Your task to perform on an android device: Open eBay Image 0: 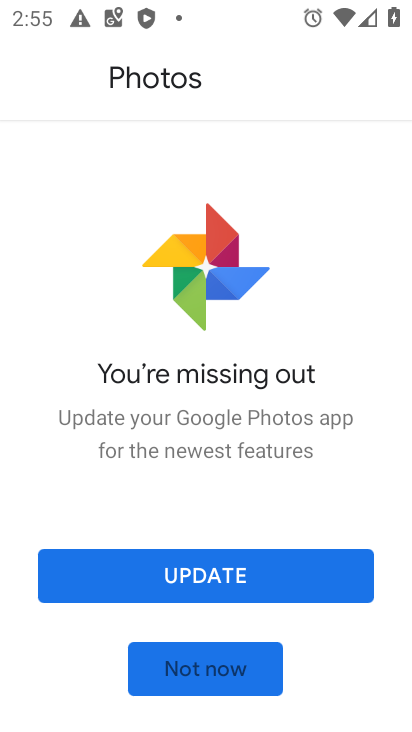
Step 0: press home button
Your task to perform on an android device: Open eBay Image 1: 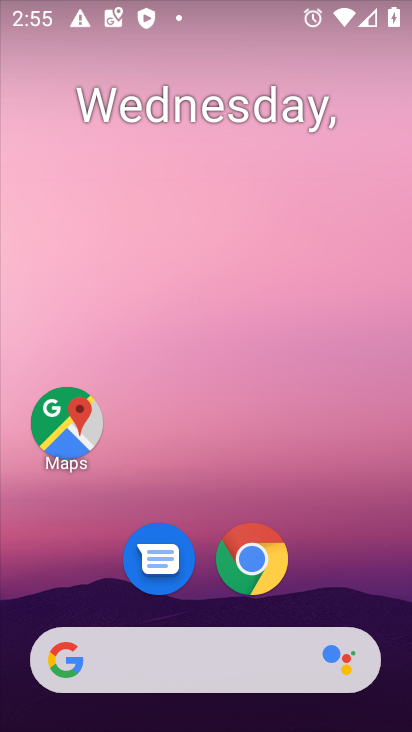
Step 1: click (256, 558)
Your task to perform on an android device: Open eBay Image 2: 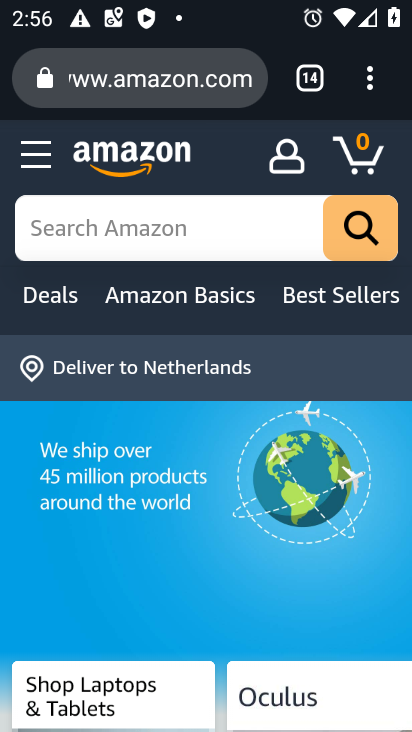
Step 2: click (370, 86)
Your task to perform on an android device: Open eBay Image 3: 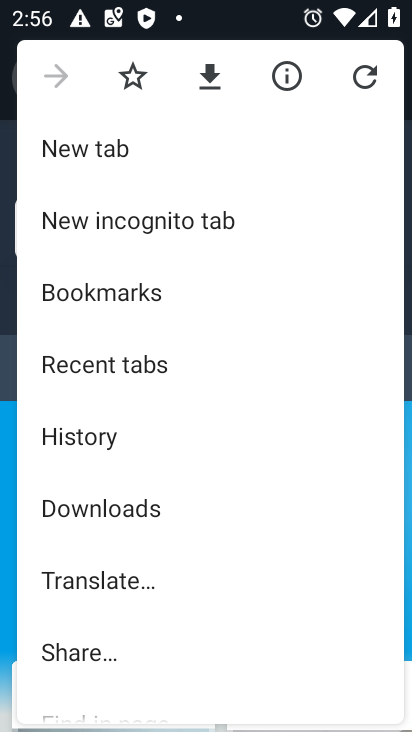
Step 3: click (79, 146)
Your task to perform on an android device: Open eBay Image 4: 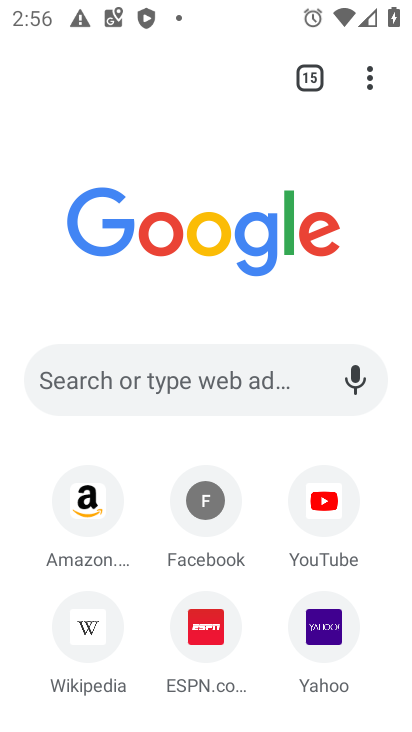
Step 4: drag from (154, 630) to (156, 391)
Your task to perform on an android device: Open eBay Image 5: 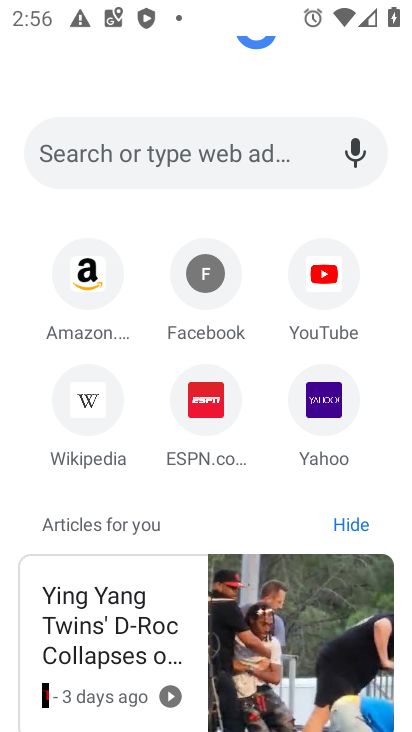
Step 5: click (243, 146)
Your task to perform on an android device: Open eBay Image 6: 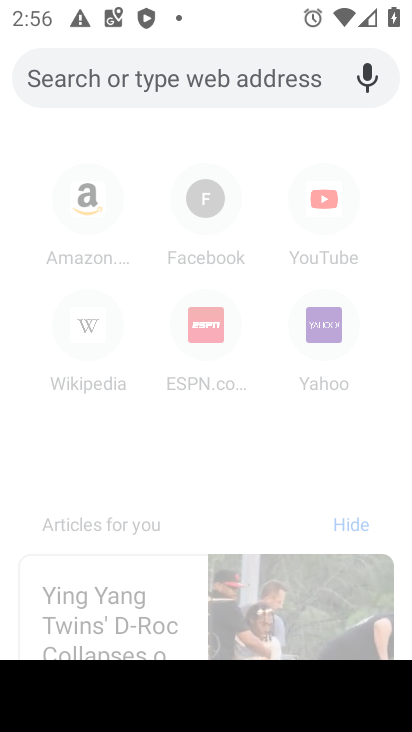
Step 6: type "eBay"
Your task to perform on an android device: Open eBay Image 7: 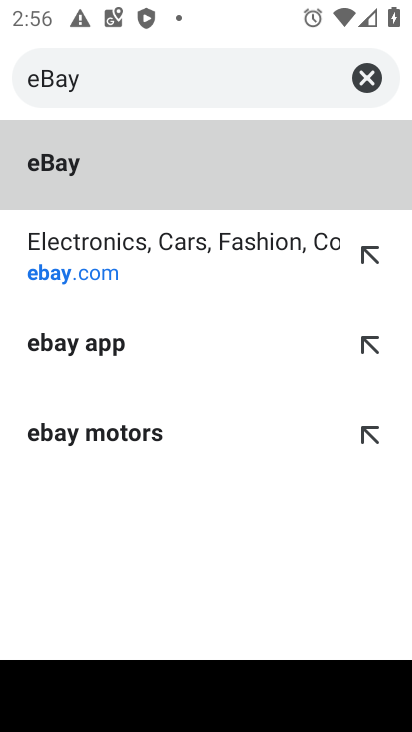
Step 7: click (41, 158)
Your task to perform on an android device: Open eBay Image 8: 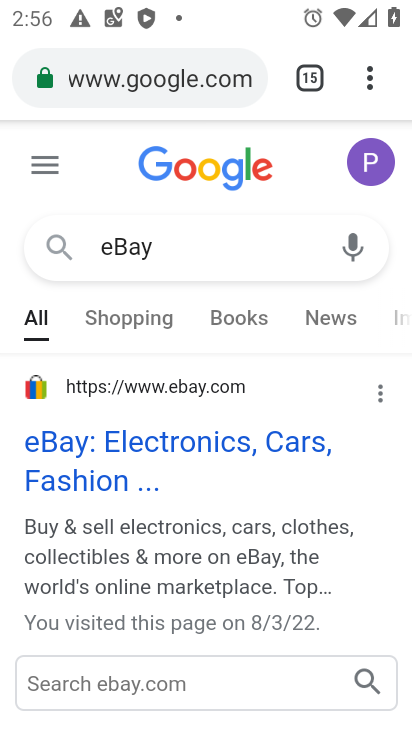
Step 8: click (61, 441)
Your task to perform on an android device: Open eBay Image 9: 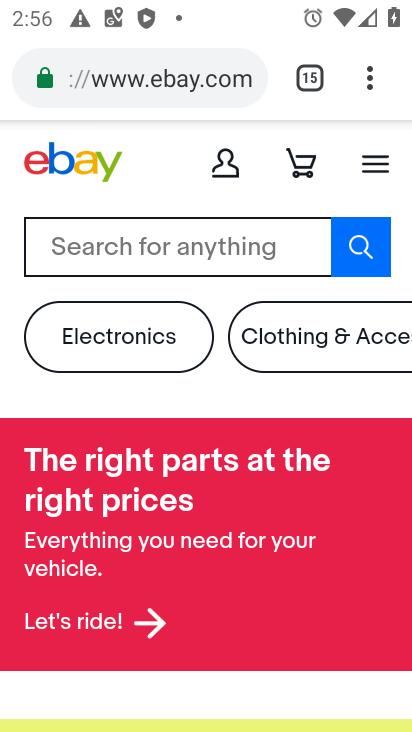
Step 9: task complete